Your task to perform on an android device: change notifications settings Image 0: 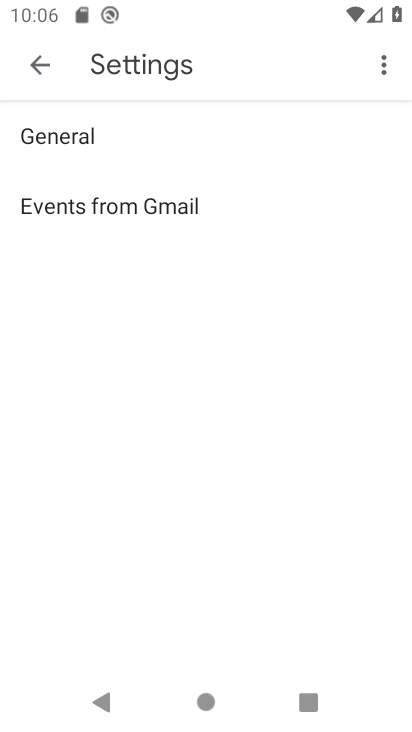
Step 0: press home button
Your task to perform on an android device: change notifications settings Image 1: 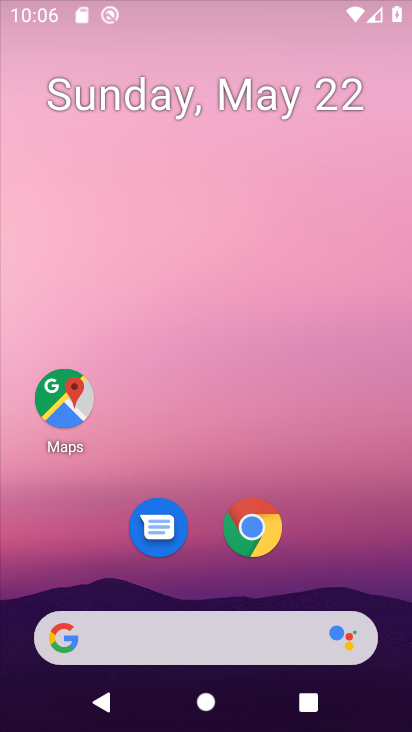
Step 1: drag from (314, 612) to (410, 281)
Your task to perform on an android device: change notifications settings Image 2: 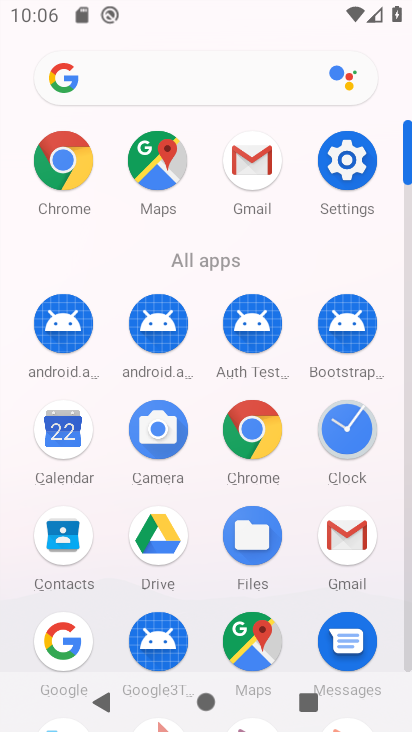
Step 2: click (367, 284)
Your task to perform on an android device: change notifications settings Image 3: 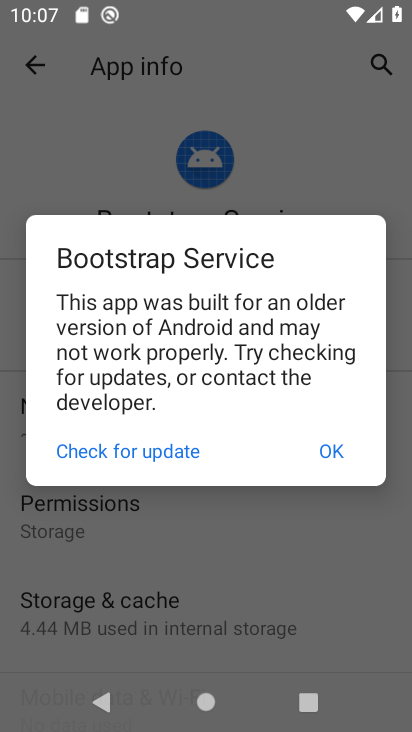
Step 3: press back button
Your task to perform on an android device: change notifications settings Image 4: 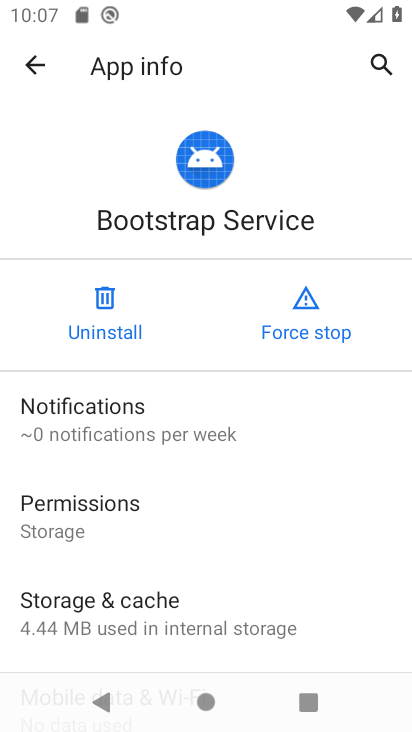
Step 4: press home button
Your task to perform on an android device: change notifications settings Image 5: 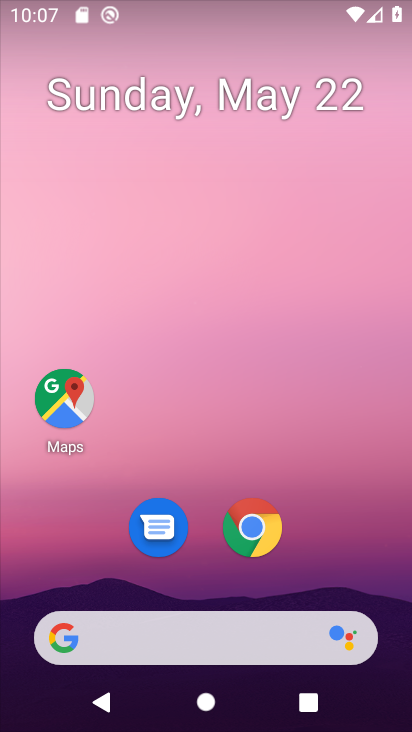
Step 5: drag from (241, 665) to (381, 33)
Your task to perform on an android device: change notifications settings Image 6: 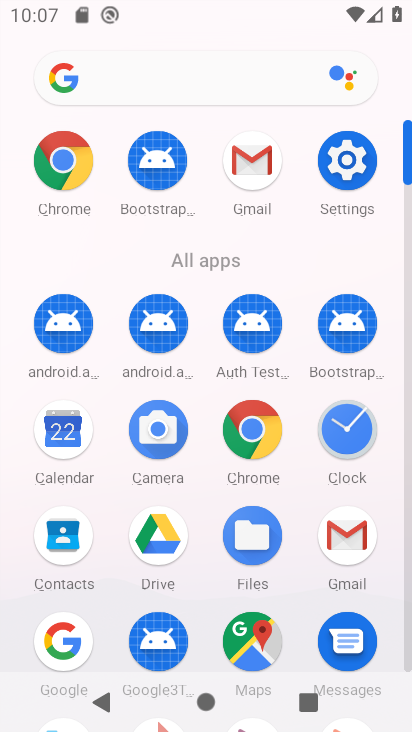
Step 6: click (347, 183)
Your task to perform on an android device: change notifications settings Image 7: 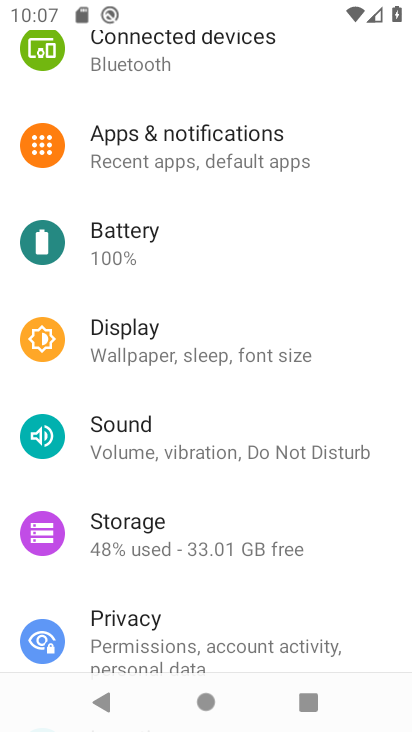
Step 7: click (234, 155)
Your task to perform on an android device: change notifications settings Image 8: 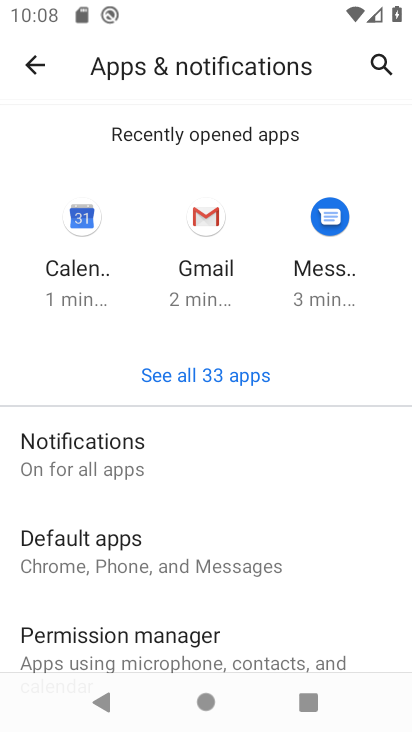
Step 8: click (142, 463)
Your task to perform on an android device: change notifications settings Image 9: 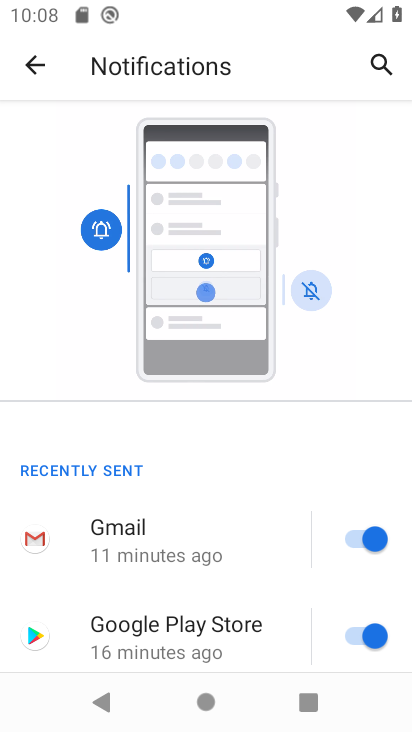
Step 9: drag from (185, 594) to (230, 349)
Your task to perform on an android device: change notifications settings Image 10: 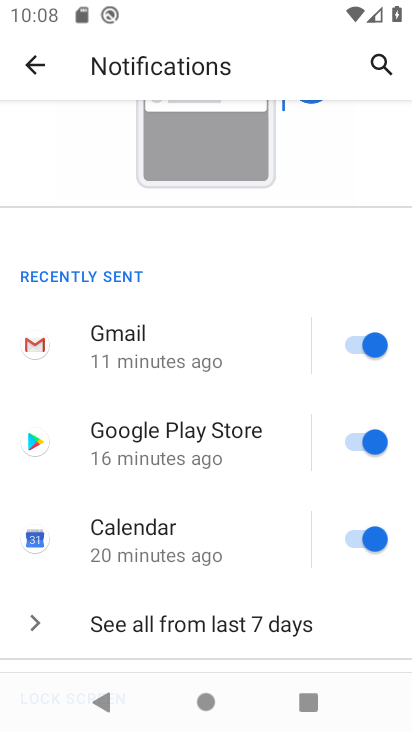
Step 10: click (347, 350)
Your task to perform on an android device: change notifications settings Image 11: 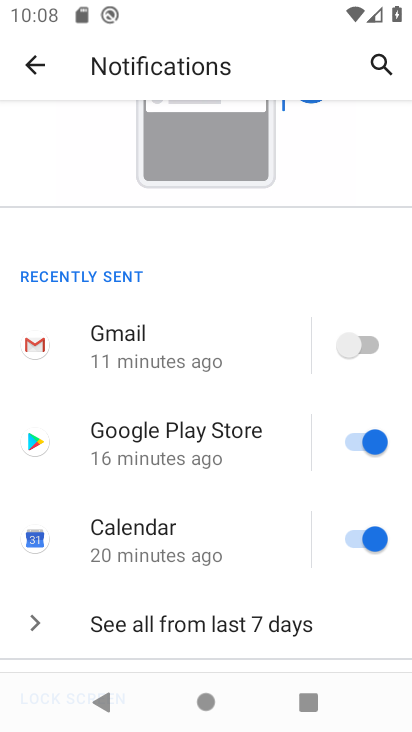
Step 11: task complete